Your task to perform on an android device: install app "LiveIn - Share Your Moment" Image 0: 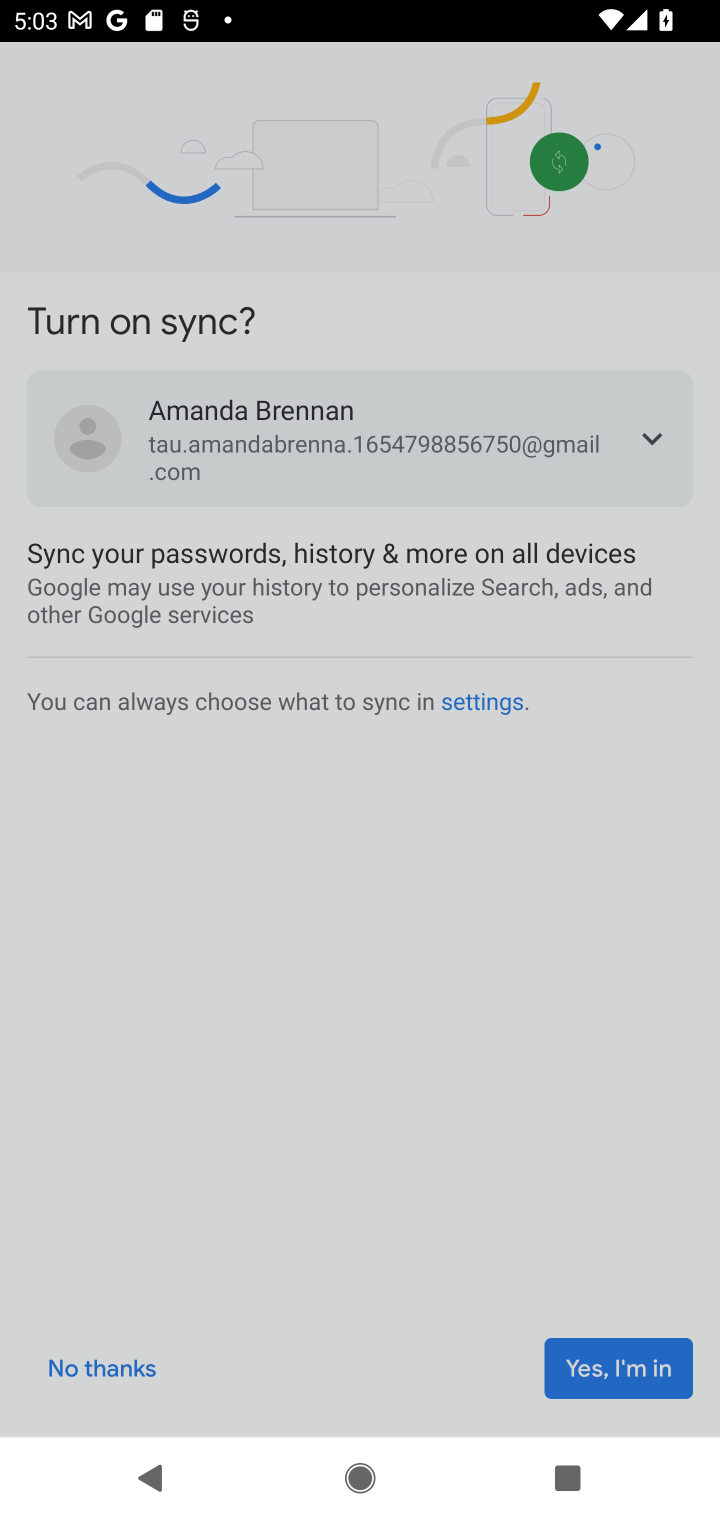
Step 0: press home button
Your task to perform on an android device: install app "LiveIn - Share Your Moment" Image 1: 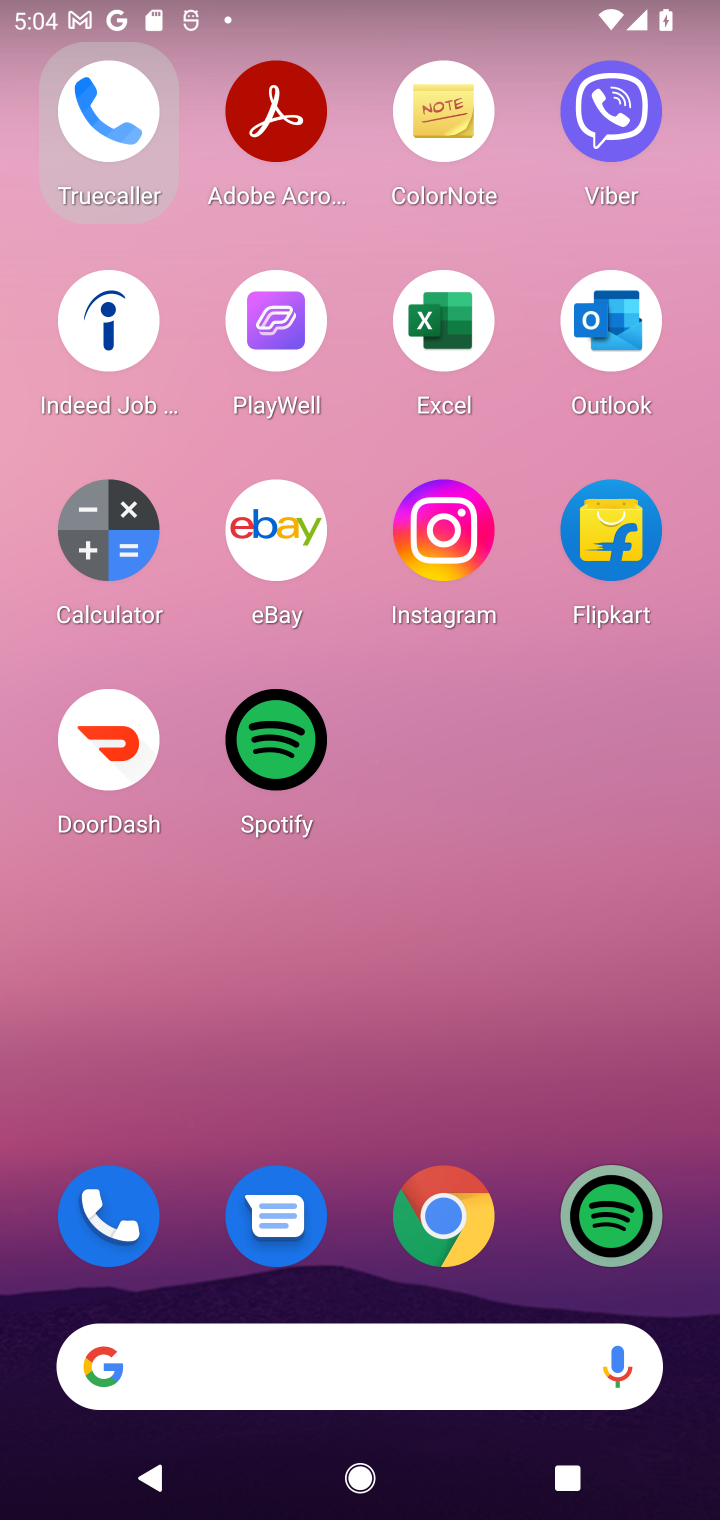
Step 1: drag from (522, 1295) to (488, 413)
Your task to perform on an android device: install app "LiveIn - Share Your Moment" Image 2: 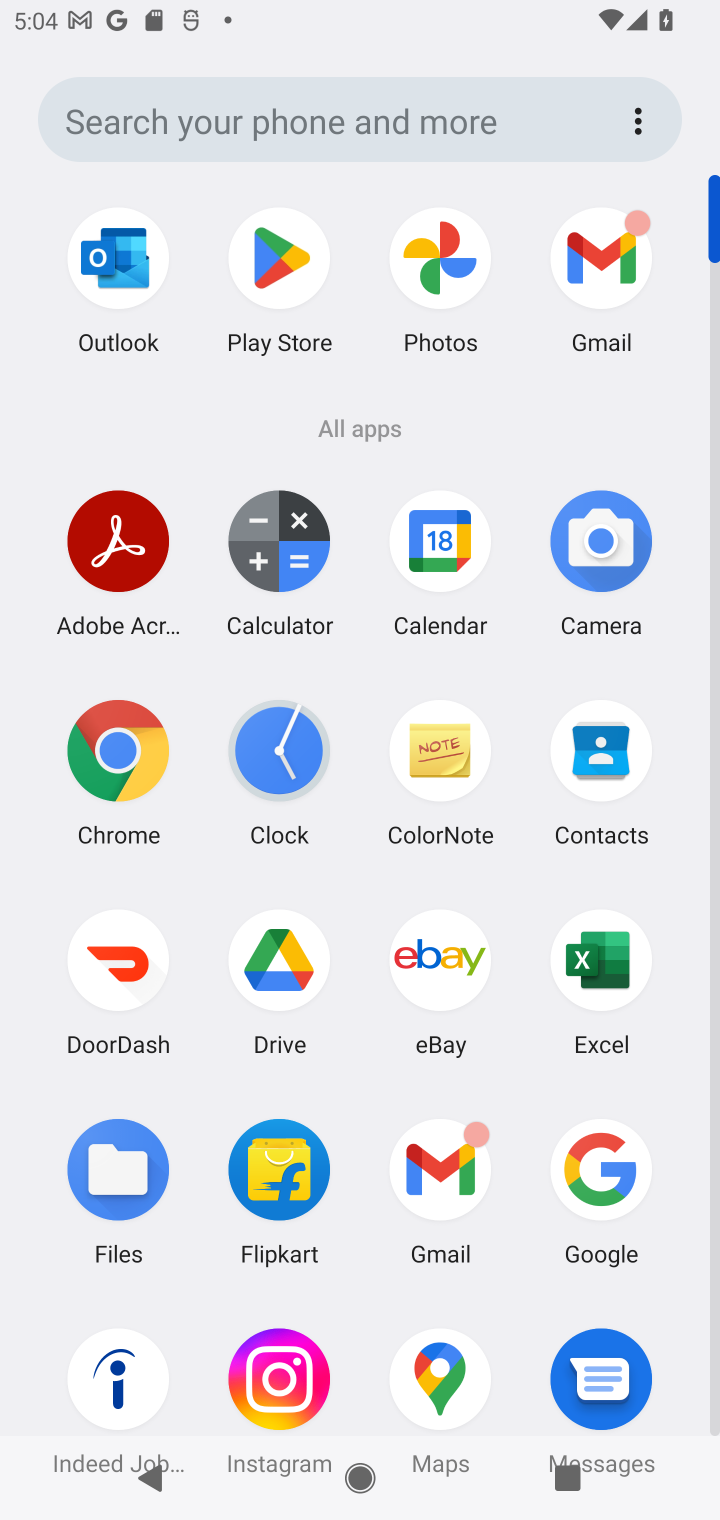
Step 2: drag from (509, 865) to (508, 566)
Your task to perform on an android device: install app "LiveIn - Share Your Moment" Image 3: 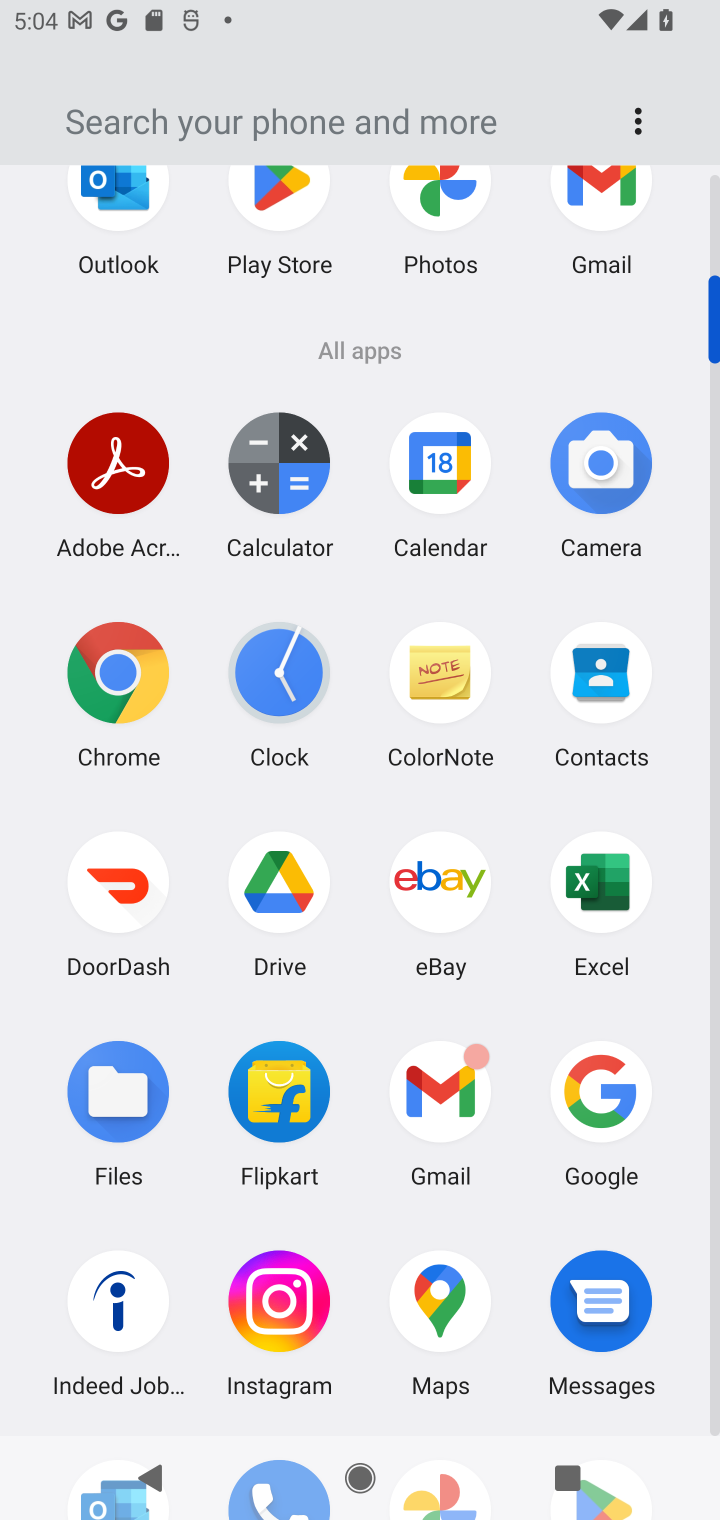
Step 3: drag from (502, 1386) to (521, 692)
Your task to perform on an android device: install app "LiveIn - Share Your Moment" Image 4: 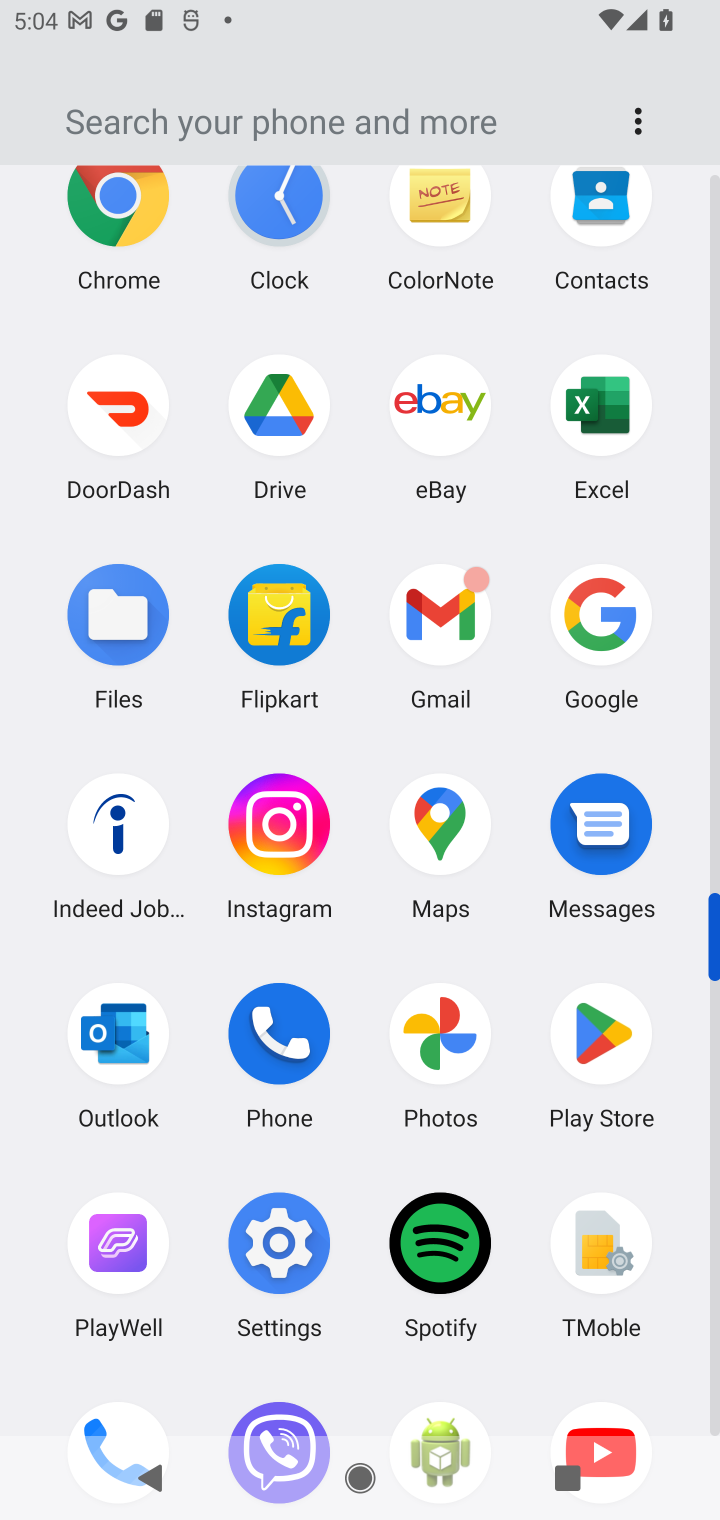
Step 4: click (606, 1035)
Your task to perform on an android device: install app "LiveIn - Share Your Moment" Image 5: 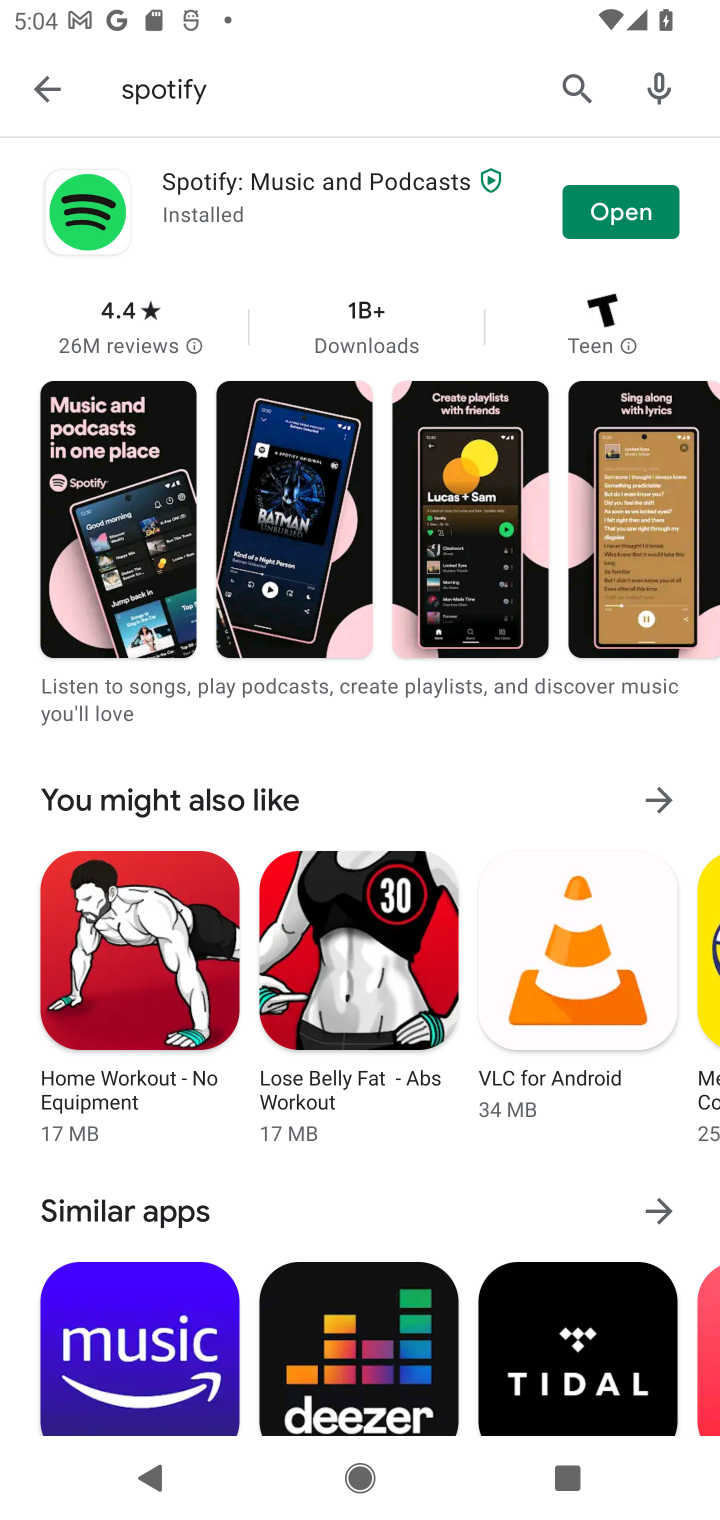
Step 5: click (569, 74)
Your task to perform on an android device: install app "LiveIn - Share Your Moment" Image 6: 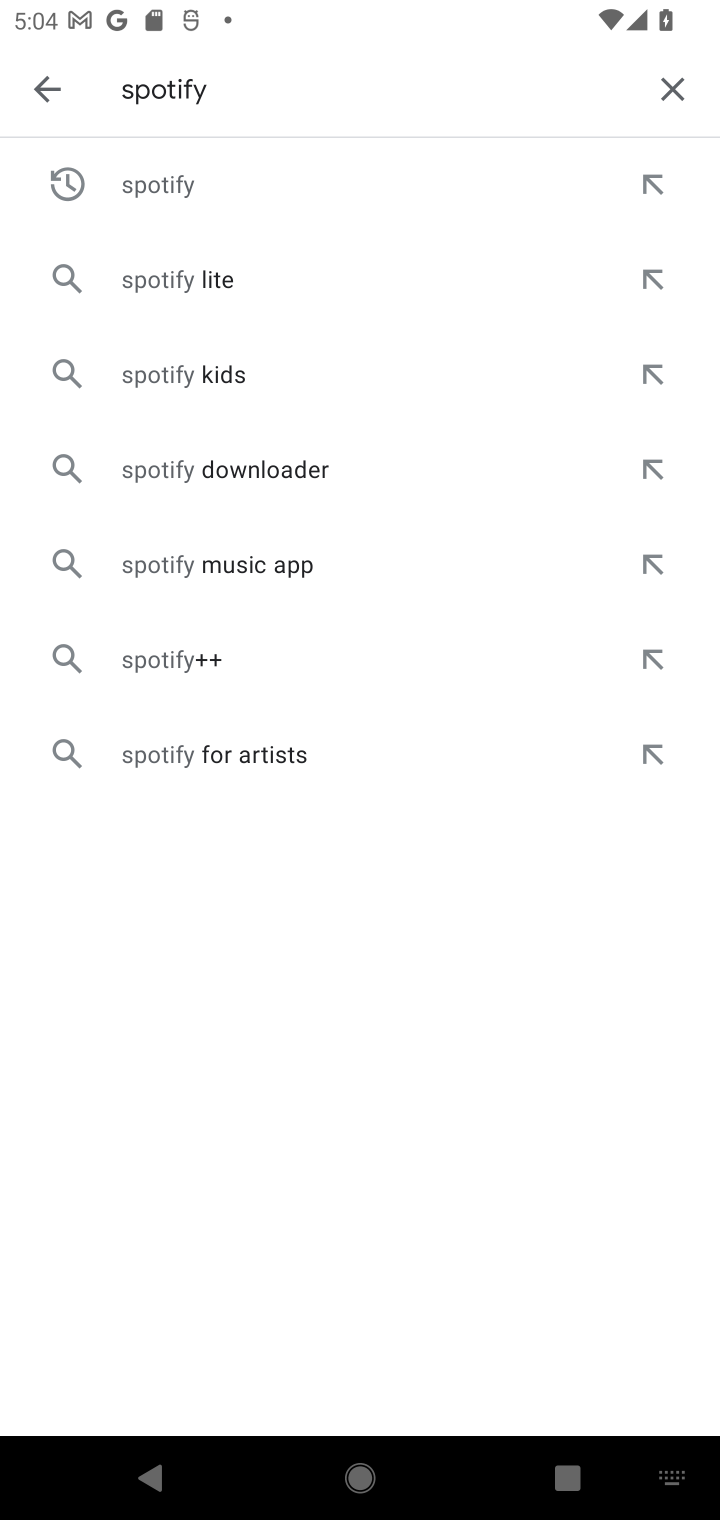
Step 6: click (672, 86)
Your task to perform on an android device: install app "LiveIn - Share Your Moment" Image 7: 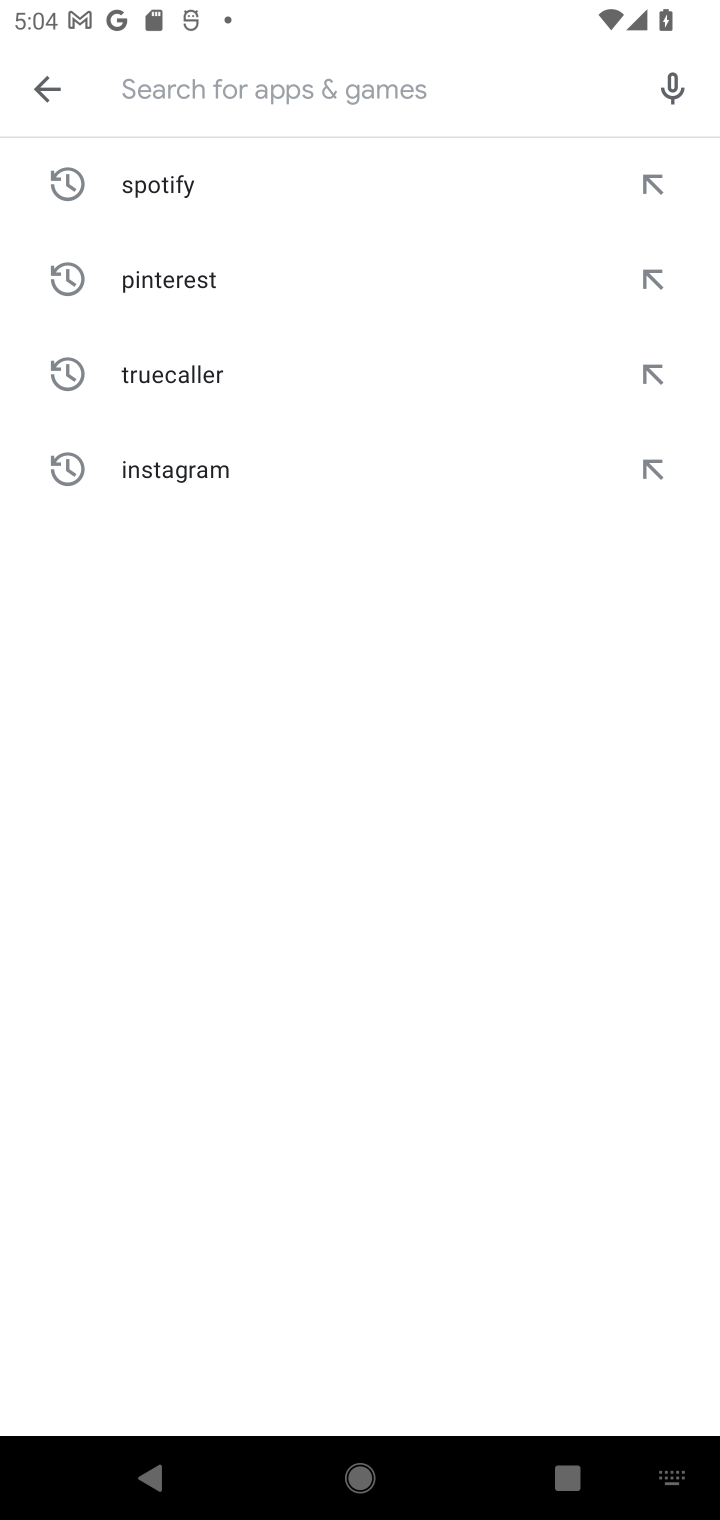
Step 7: type "LiveIn - Share Your Moment"
Your task to perform on an android device: install app "LiveIn - Share Your Moment" Image 8: 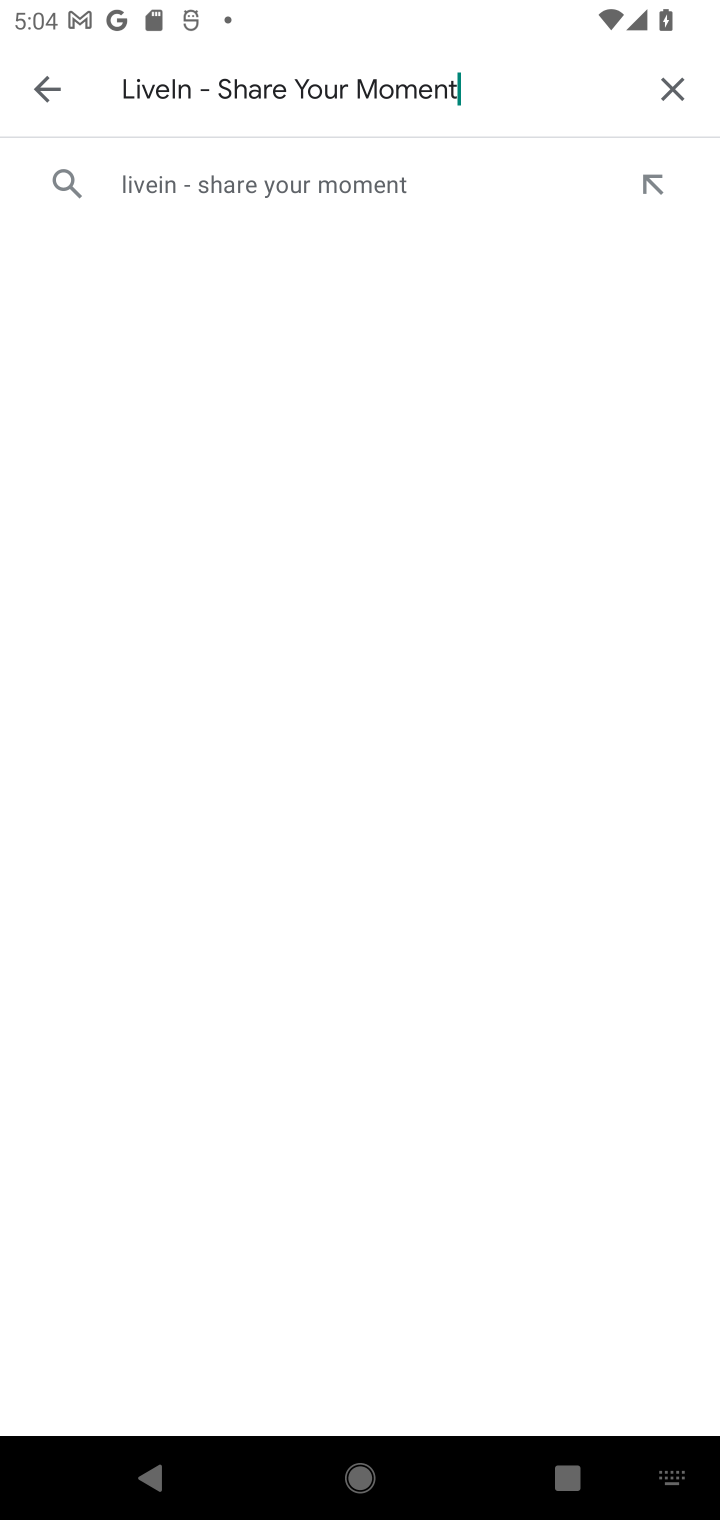
Step 8: click (208, 179)
Your task to perform on an android device: install app "LiveIn - Share Your Moment" Image 9: 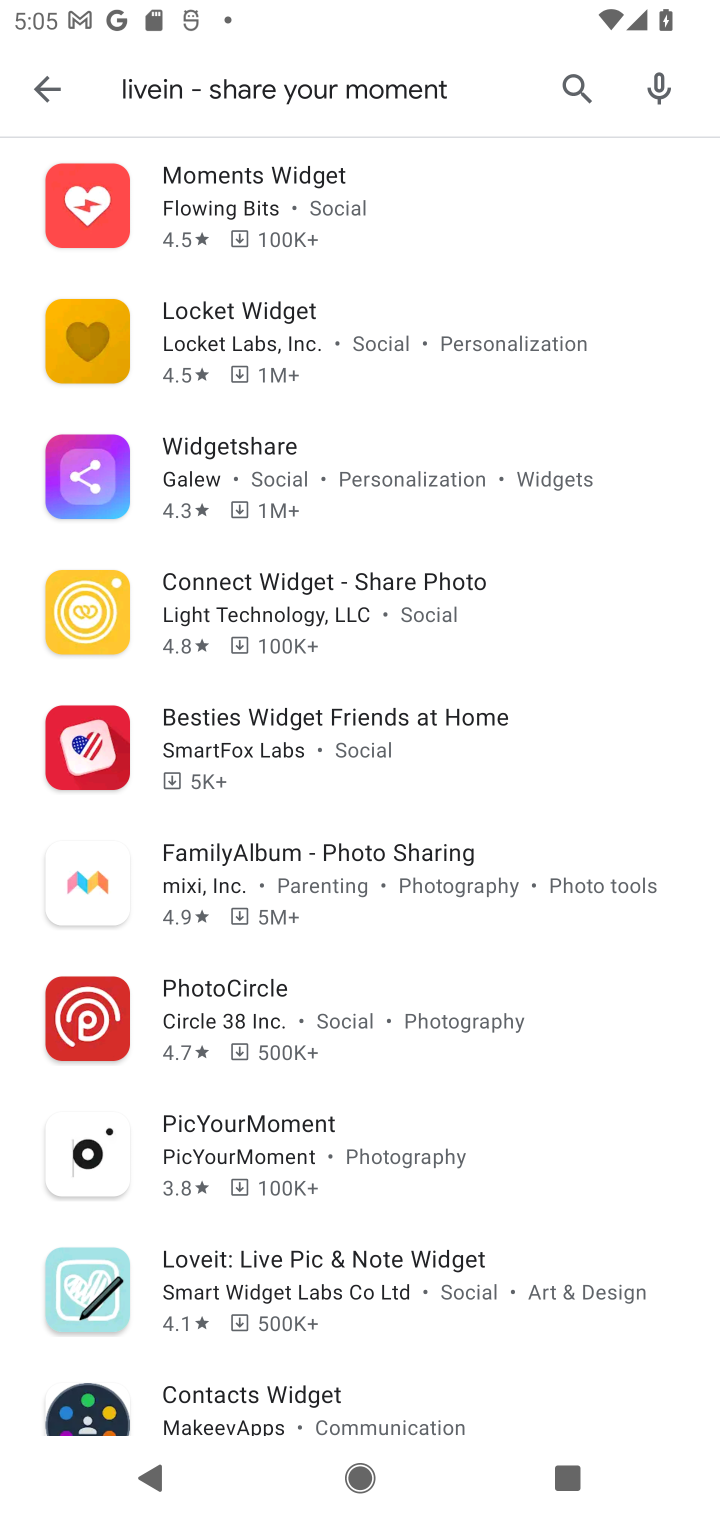
Step 9: task complete